Your task to perform on an android device: open device folders in google photos Image 0: 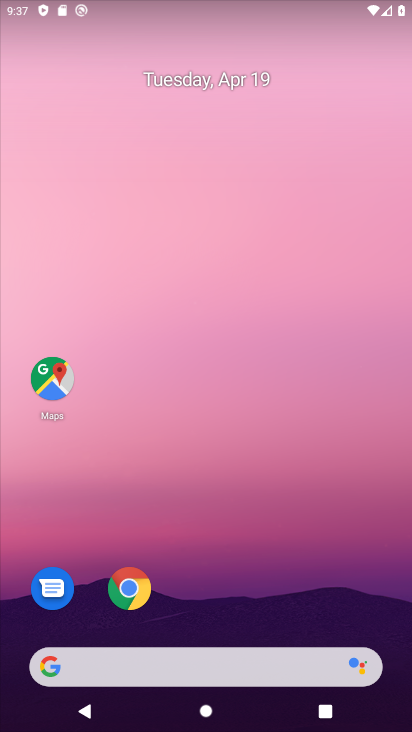
Step 0: drag from (227, 586) to (345, 37)
Your task to perform on an android device: open device folders in google photos Image 1: 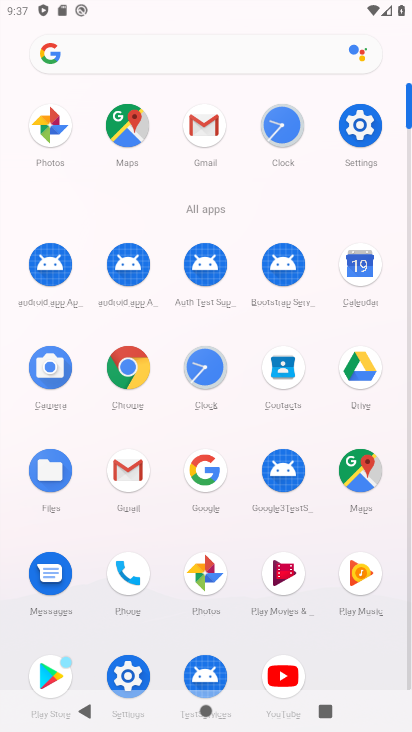
Step 1: click (205, 579)
Your task to perform on an android device: open device folders in google photos Image 2: 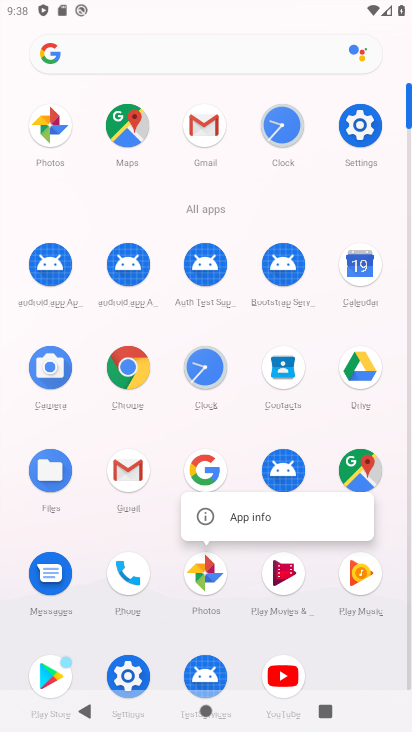
Step 2: click (206, 592)
Your task to perform on an android device: open device folders in google photos Image 3: 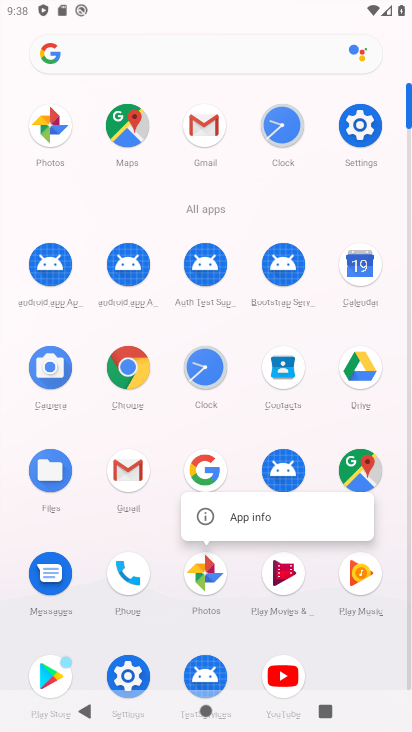
Step 3: click (199, 583)
Your task to perform on an android device: open device folders in google photos Image 4: 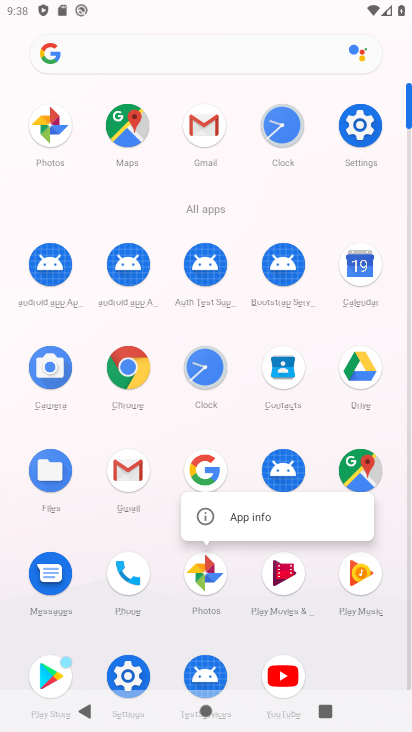
Step 4: click (213, 580)
Your task to perform on an android device: open device folders in google photos Image 5: 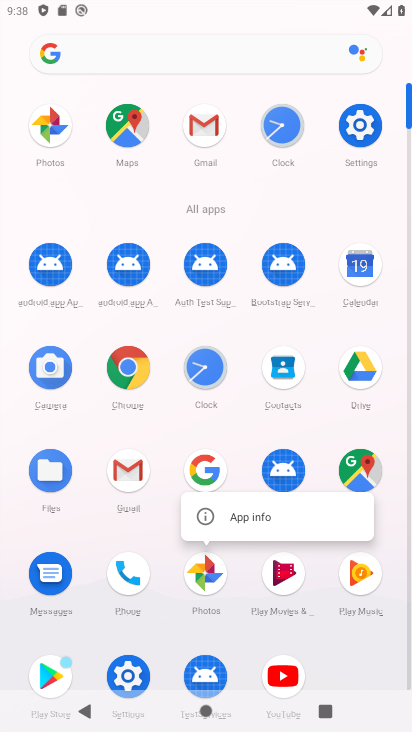
Step 5: click (205, 572)
Your task to perform on an android device: open device folders in google photos Image 6: 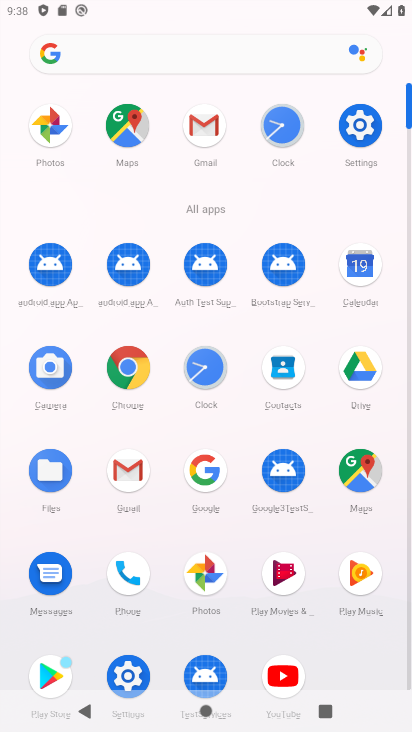
Step 6: click (211, 586)
Your task to perform on an android device: open device folders in google photos Image 7: 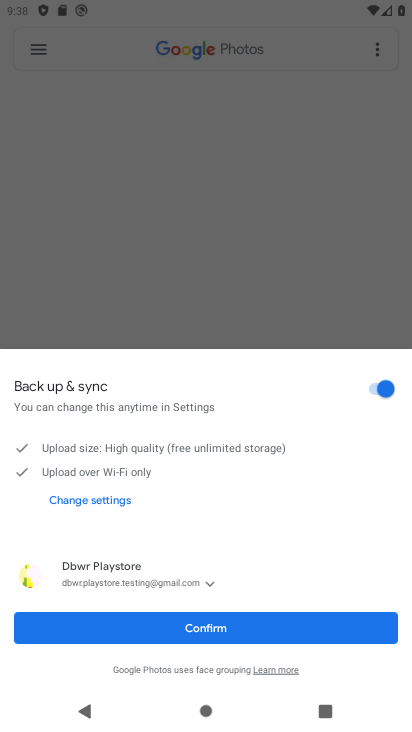
Step 7: click (235, 636)
Your task to perform on an android device: open device folders in google photos Image 8: 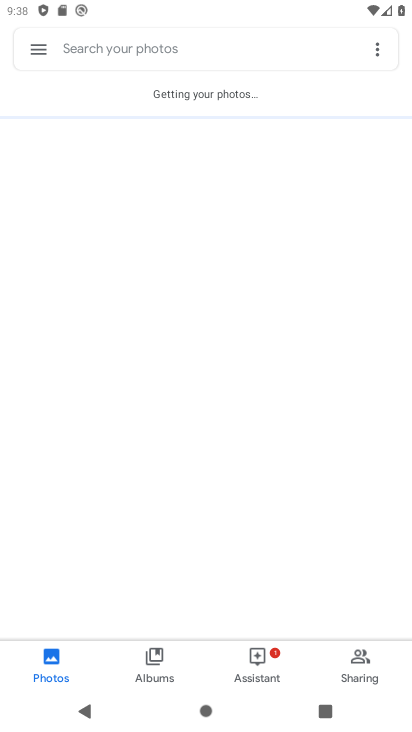
Step 8: click (39, 52)
Your task to perform on an android device: open device folders in google photos Image 9: 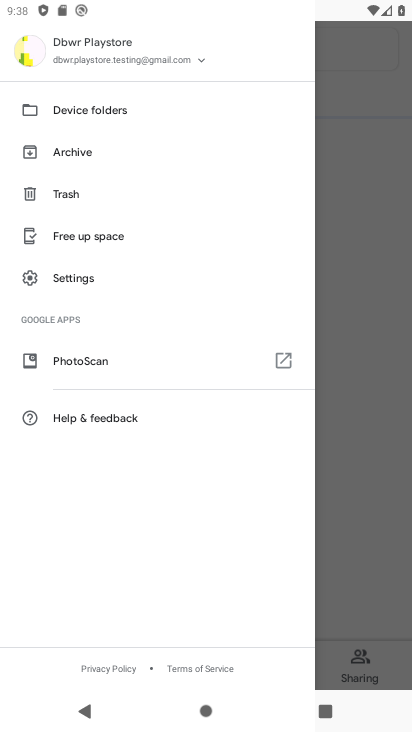
Step 9: click (186, 124)
Your task to perform on an android device: open device folders in google photos Image 10: 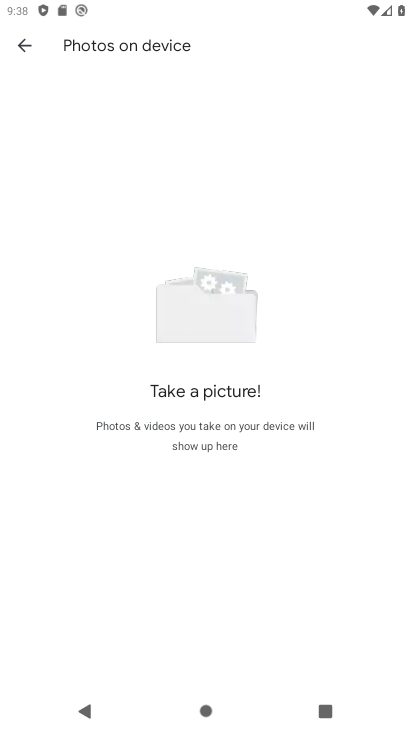
Step 10: task complete